Your task to perform on an android device: see tabs open on other devices in the chrome app Image 0: 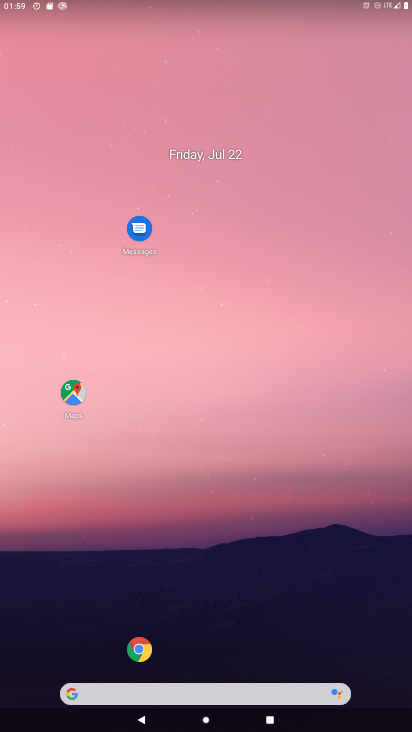
Step 0: click (126, 646)
Your task to perform on an android device: see tabs open on other devices in the chrome app Image 1: 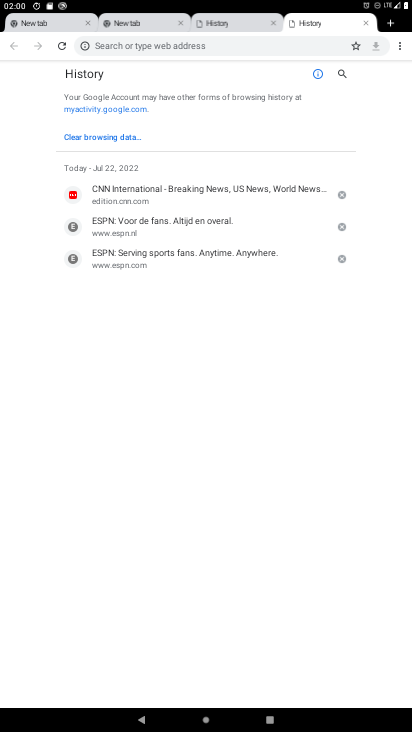
Step 1: task complete